Your task to perform on an android device: remove spam from my inbox in the gmail app Image 0: 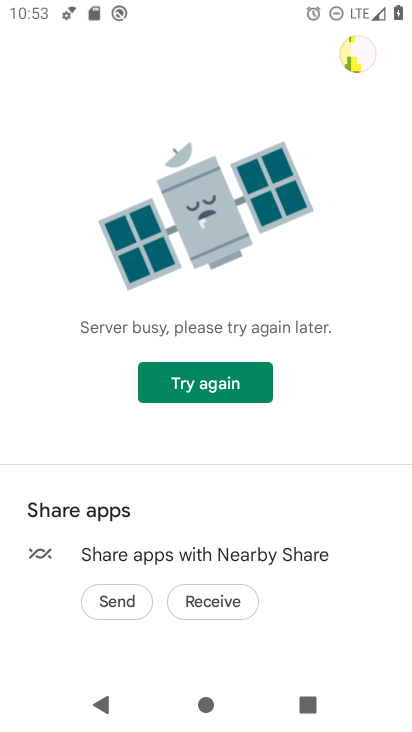
Step 0: press home button
Your task to perform on an android device: remove spam from my inbox in the gmail app Image 1: 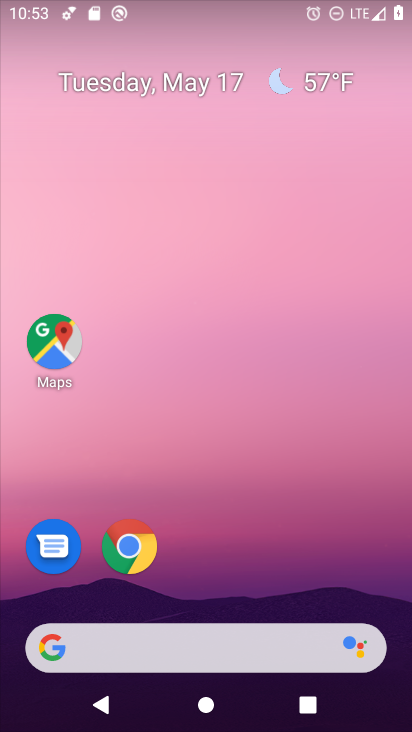
Step 1: drag from (336, 592) to (320, 1)
Your task to perform on an android device: remove spam from my inbox in the gmail app Image 2: 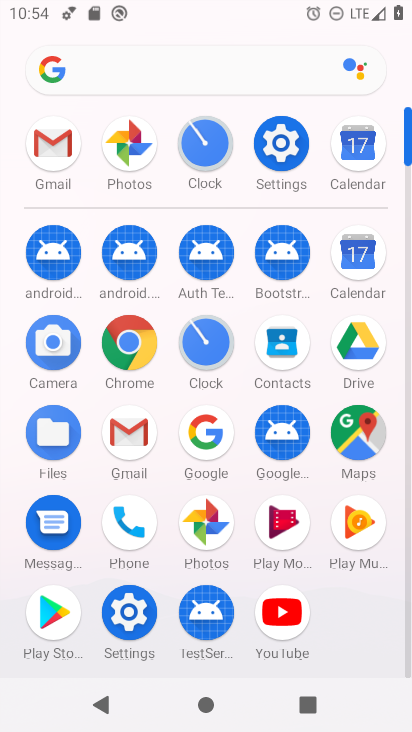
Step 2: click (44, 156)
Your task to perform on an android device: remove spam from my inbox in the gmail app Image 3: 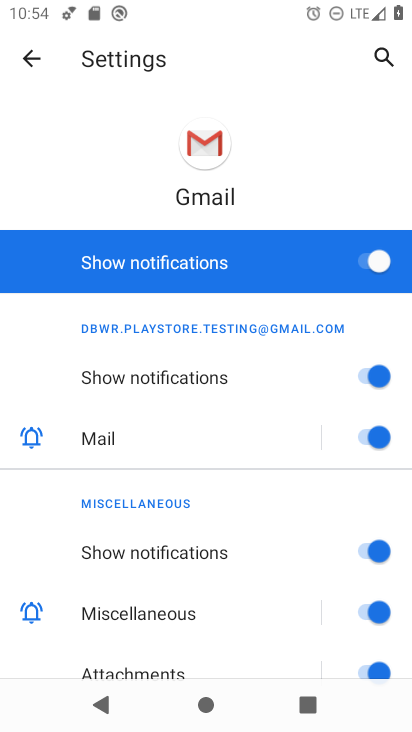
Step 3: click (27, 61)
Your task to perform on an android device: remove spam from my inbox in the gmail app Image 4: 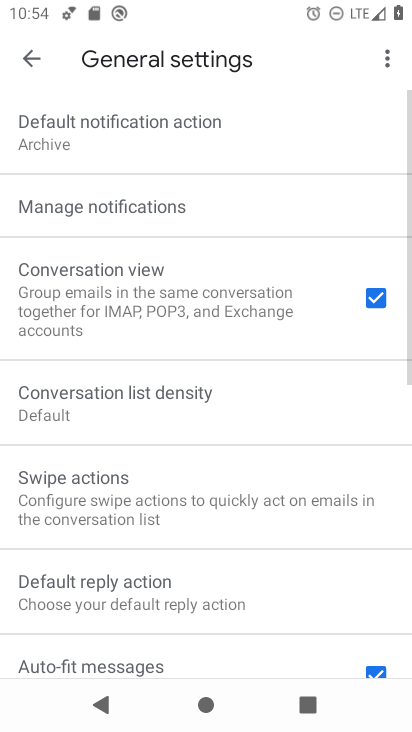
Step 4: click (27, 61)
Your task to perform on an android device: remove spam from my inbox in the gmail app Image 5: 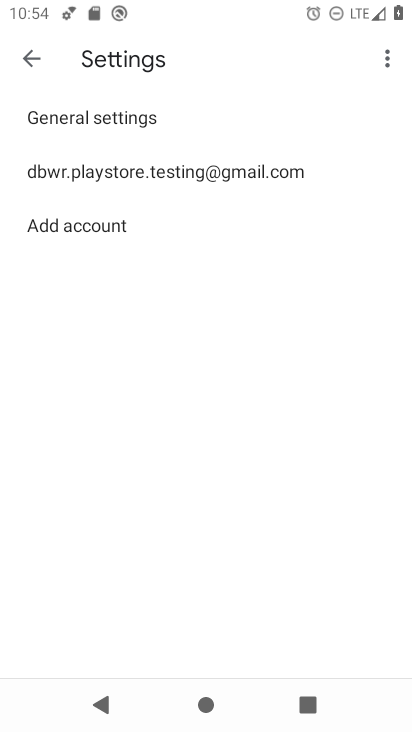
Step 5: click (27, 59)
Your task to perform on an android device: remove spam from my inbox in the gmail app Image 6: 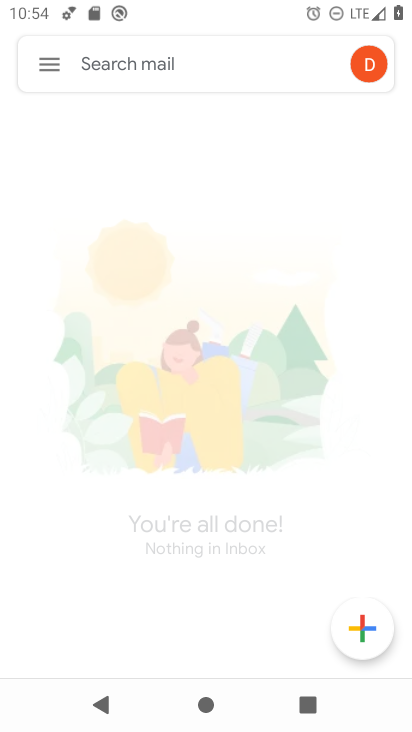
Step 6: click (27, 59)
Your task to perform on an android device: remove spam from my inbox in the gmail app Image 7: 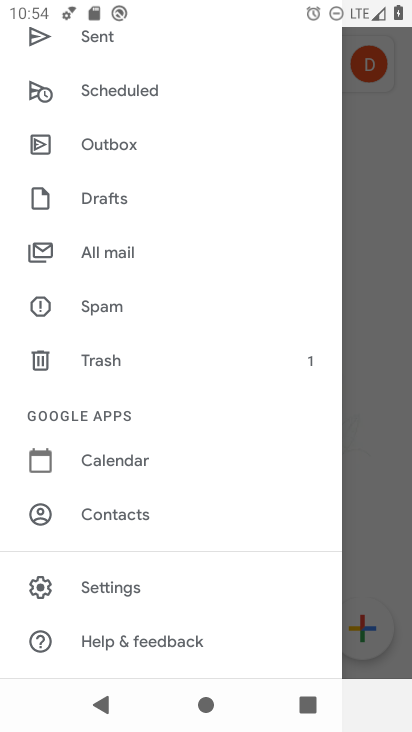
Step 7: click (125, 304)
Your task to perform on an android device: remove spam from my inbox in the gmail app Image 8: 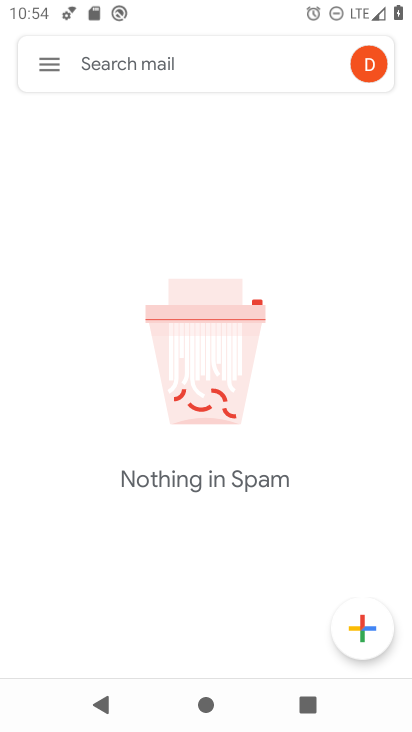
Step 8: task complete